Your task to perform on an android device: turn on bluetooth scan Image 0: 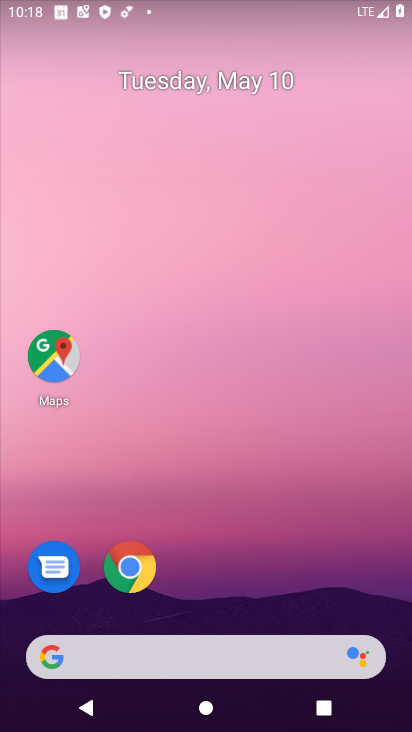
Step 0: drag from (18, 665) to (210, 175)
Your task to perform on an android device: turn on bluetooth scan Image 1: 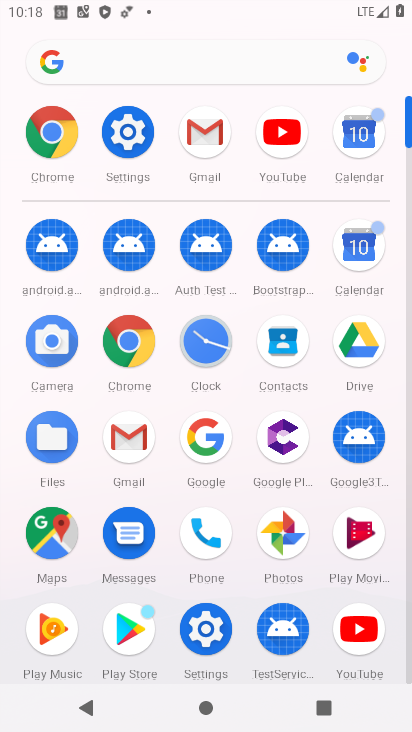
Step 1: click (136, 141)
Your task to perform on an android device: turn on bluetooth scan Image 2: 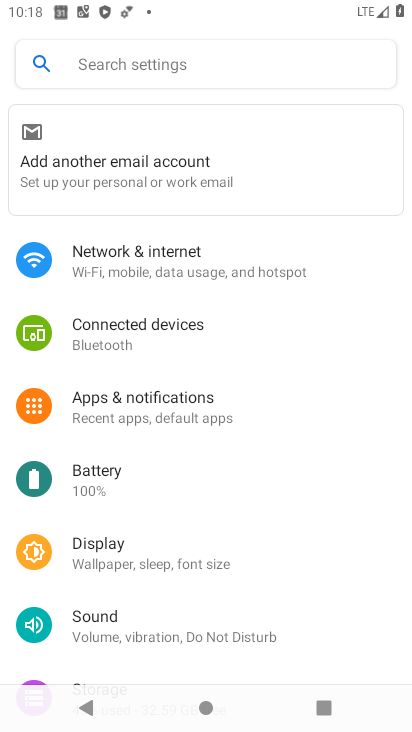
Step 2: drag from (124, 644) to (245, 185)
Your task to perform on an android device: turn on bluetooth scan Image 3: 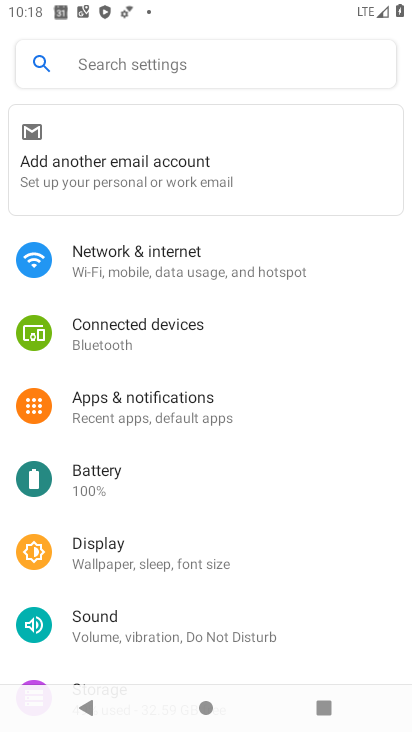
Step 3: drag from (49, 639) to (219, 214)
Your task to perform on an android device: turn on bluetooth scan Image 4: 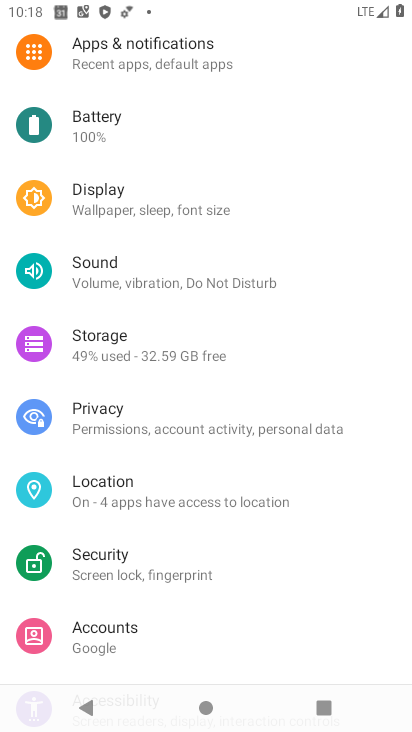
Step 4: click (80, 495)
Your task to perform on an android device: turn on bluetooth scan Image 5: 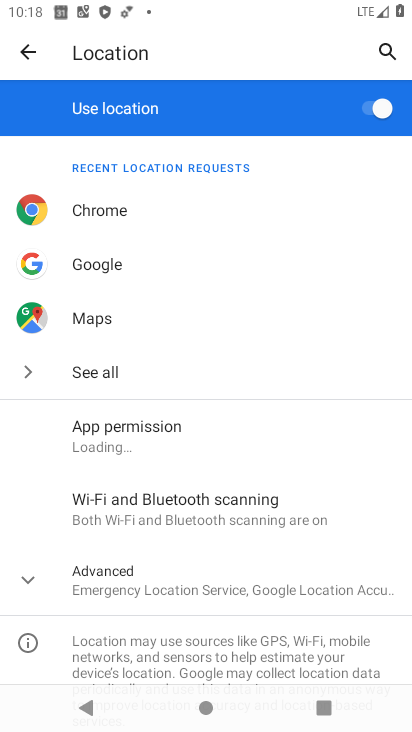
Step 5: click (172, 504)
Your task to perform on an android device: turn on bluetooth scan Image 6: 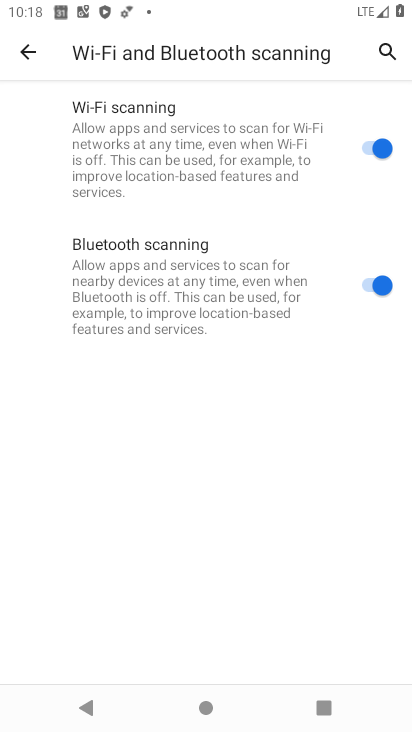
Step 6: task complete